Your task to perform on an android device: Add "usb-c to usb-b" to the cart on ebay.com Image 0: 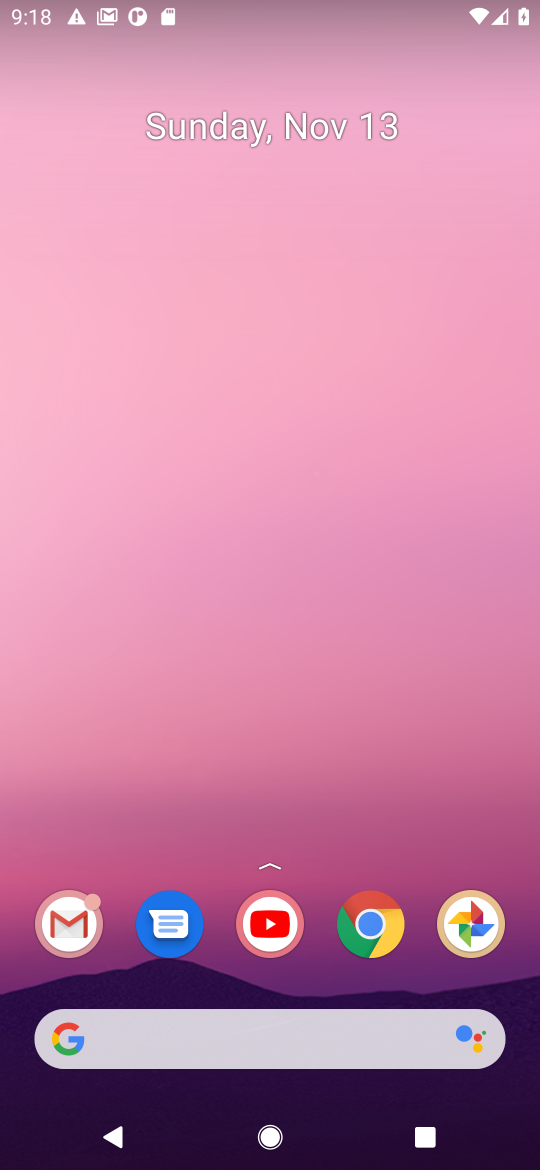
Step 0: click (386, 922)
Your task to perform on an android device: Add "usb-c to usb-b" to the cart on ebay.com Image 1: 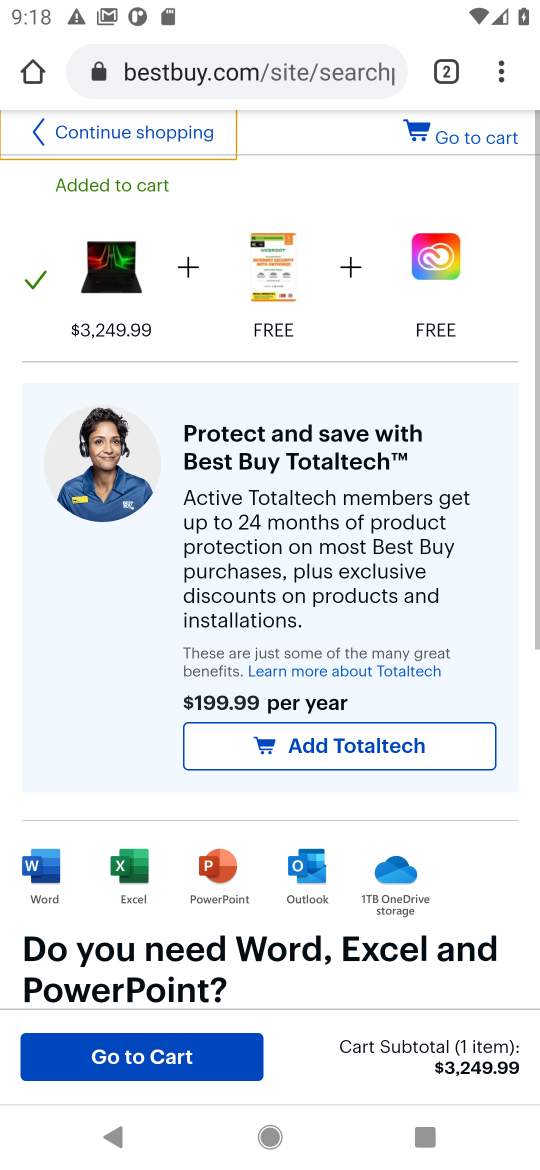
Step 1: click (257, 72)
Your task to perform on an android device: Add "usb-c to usb-b" to the cart on ebay.com Image 2: 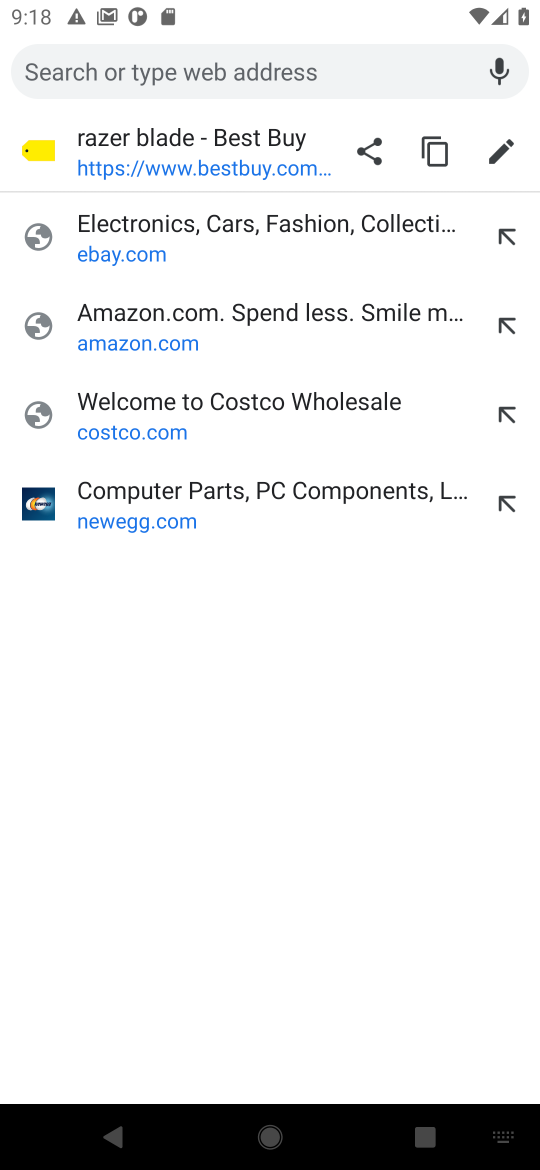
Step 2: click (98, 257)
Your task to perform on an android device: Add "usb-c to usb-b" to the cart on ebay.com Image 3: 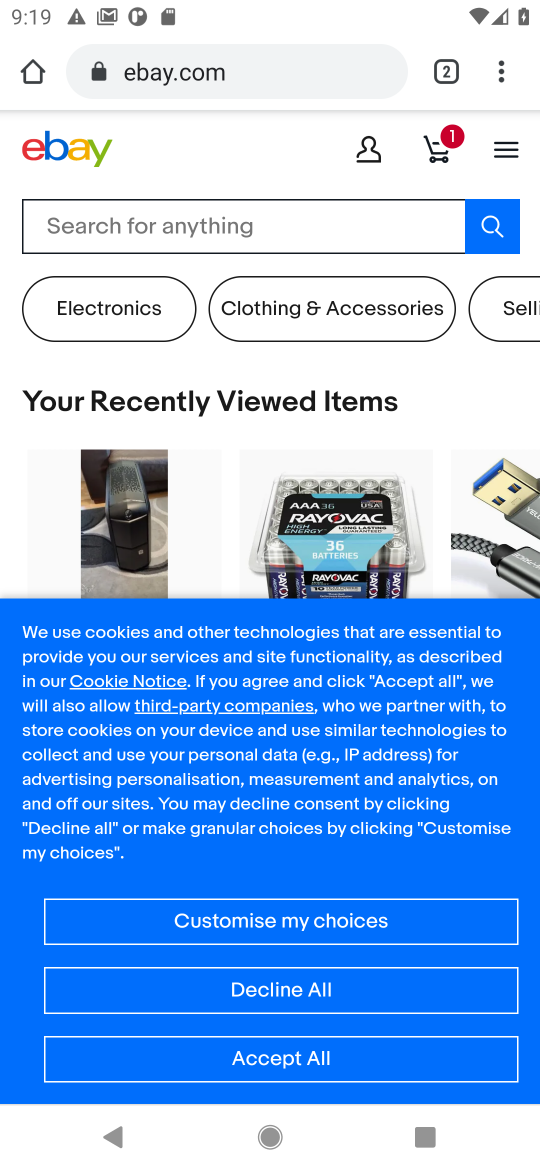
Step 3: click (196, 235)
Your task to perform on an android device: Add "usb-c to usb-b" to the cart on ebay.com Image 4: 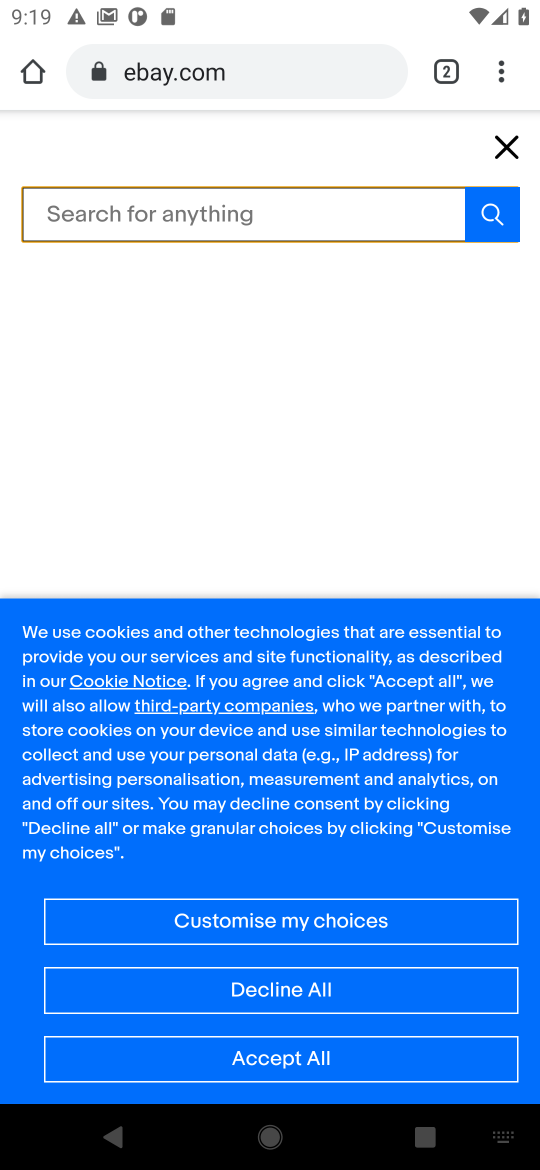
Step 4: type "usb-c to usb-b"
Your task to perform on an android device: Add "usb-c to usb-b" to the cart on ebay.com Image 5: 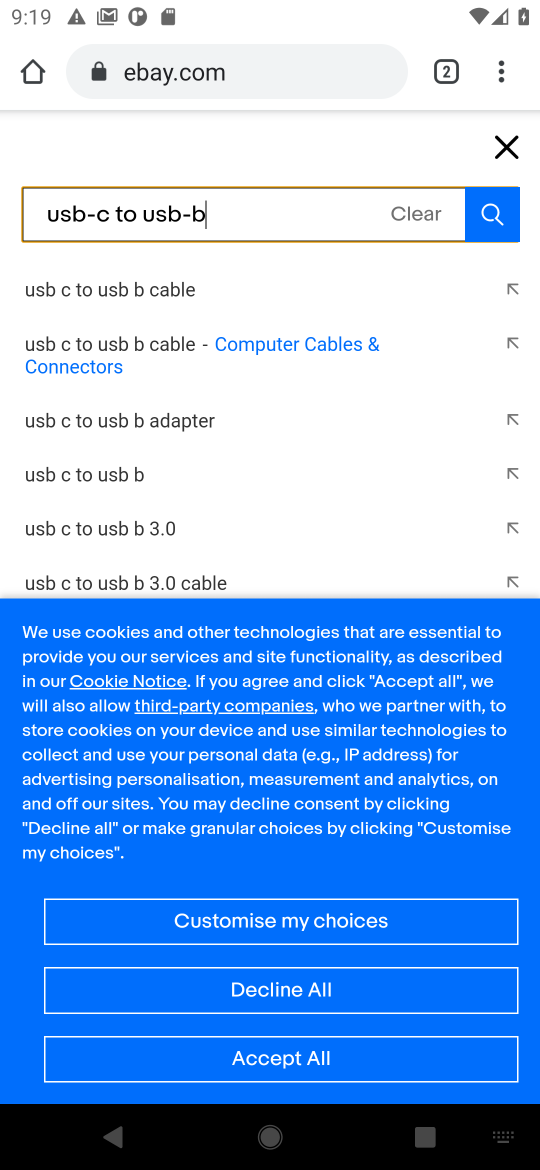
Step 5: click (489, 228)
Your task to perform on an android device: Add "usb-c to usb-b" to the cart on ebay.com Image 6: 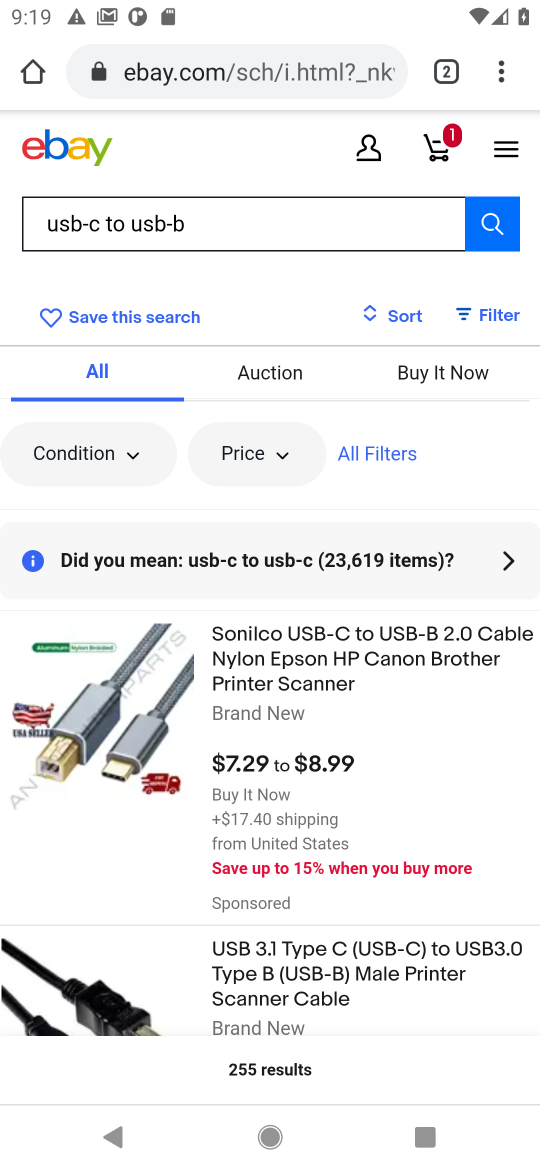
Step 6: click (159, 768)
Your task to perform on an android device: Add "usb-c to usb-b" to the cart on ebay.com Image 7: 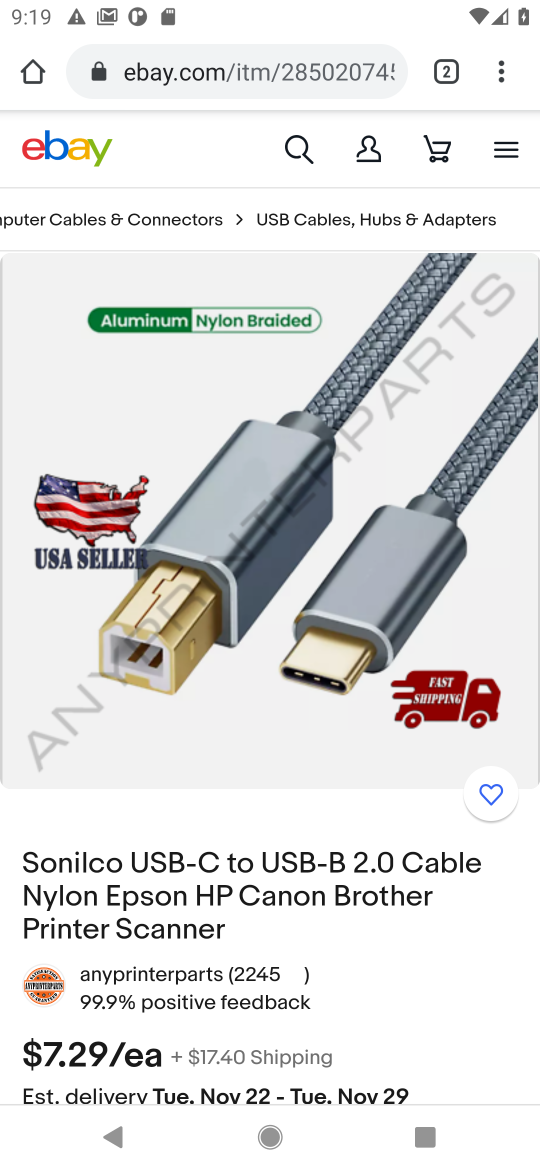
Step 7: drag from (277, 949) to (239, 419)
Your task to perform on an android device: Add "usb-c to usb-b" to the cart on ebay.com Image 8: 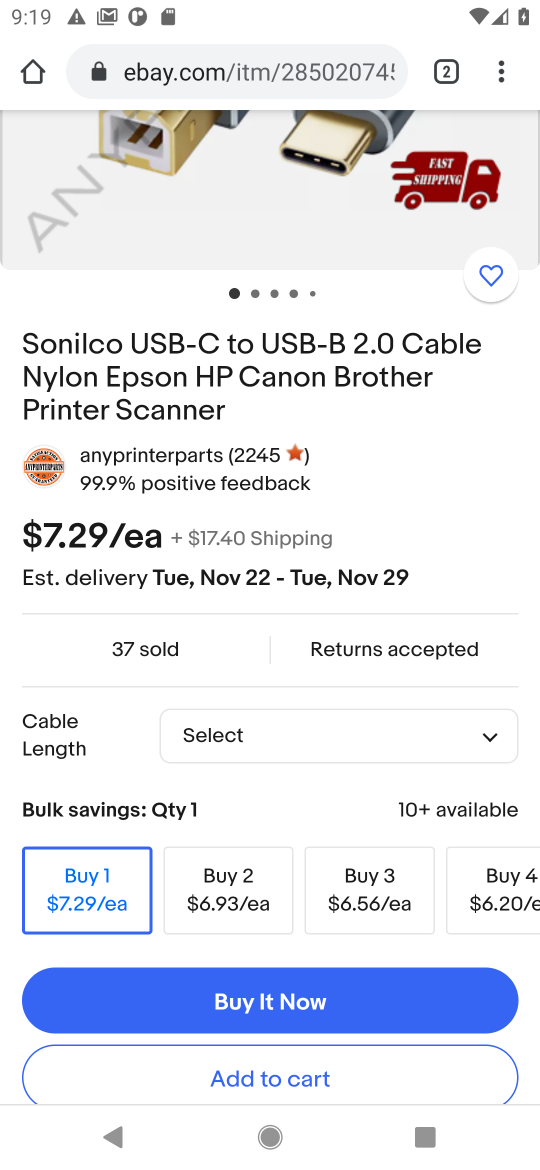
Step 8: click (330, 1069)
Your task to perform on an android device: Add "usb-c to usb-b" to the cart on ebay.com Image 9: 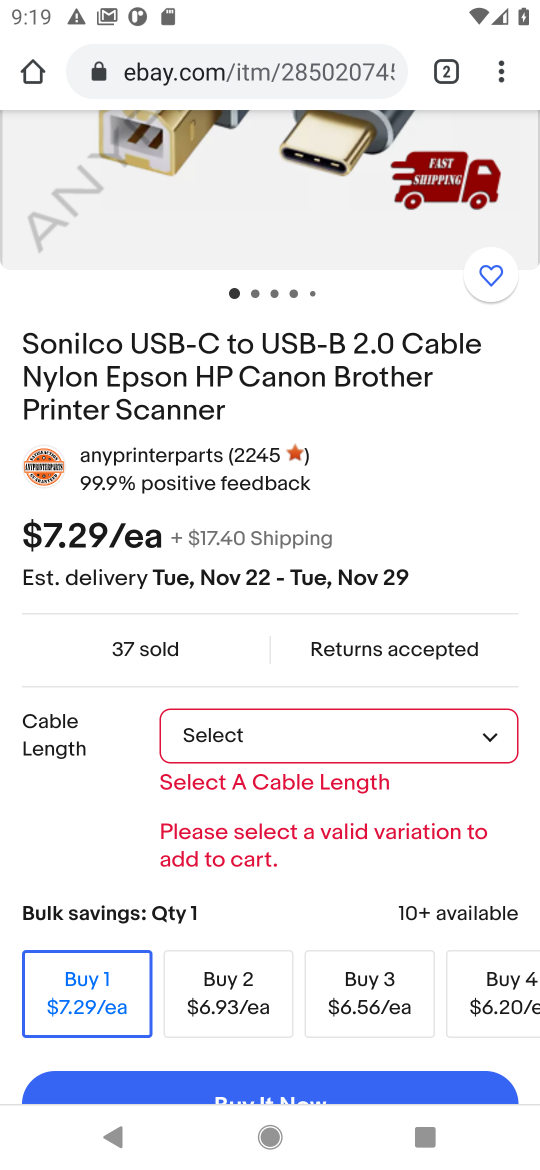
Step 9: click (495, 737)
Your task to perform on an android device: Add "usb-c to usb-b" to the cart on ebay.com Image 10: 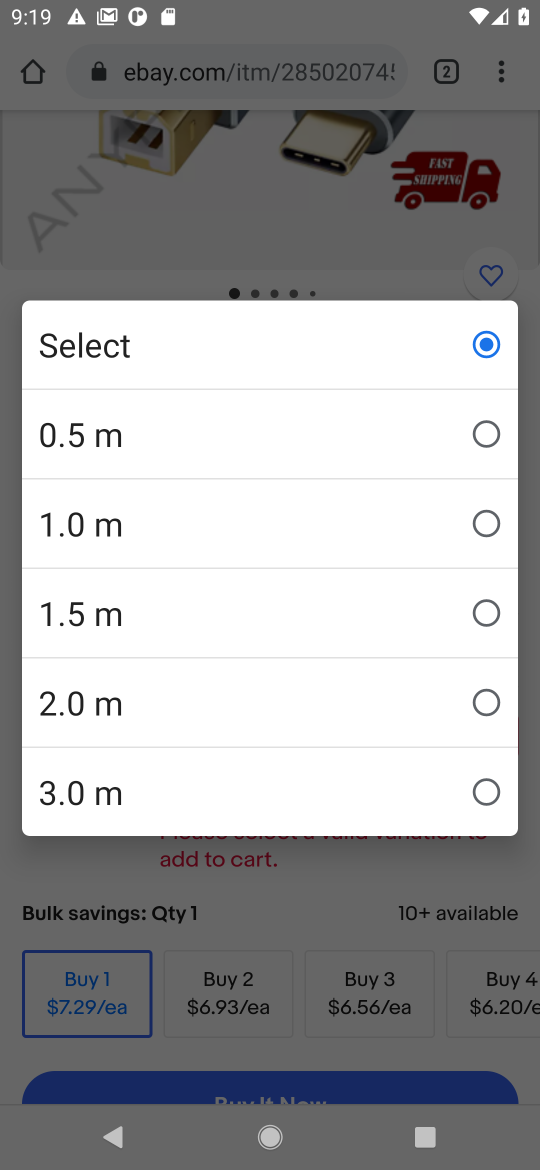
Step 10: click (61, 515)
Your task to perform on an android device: Add "usb-c to usb-b" to the cart on ebay.com Image 11: 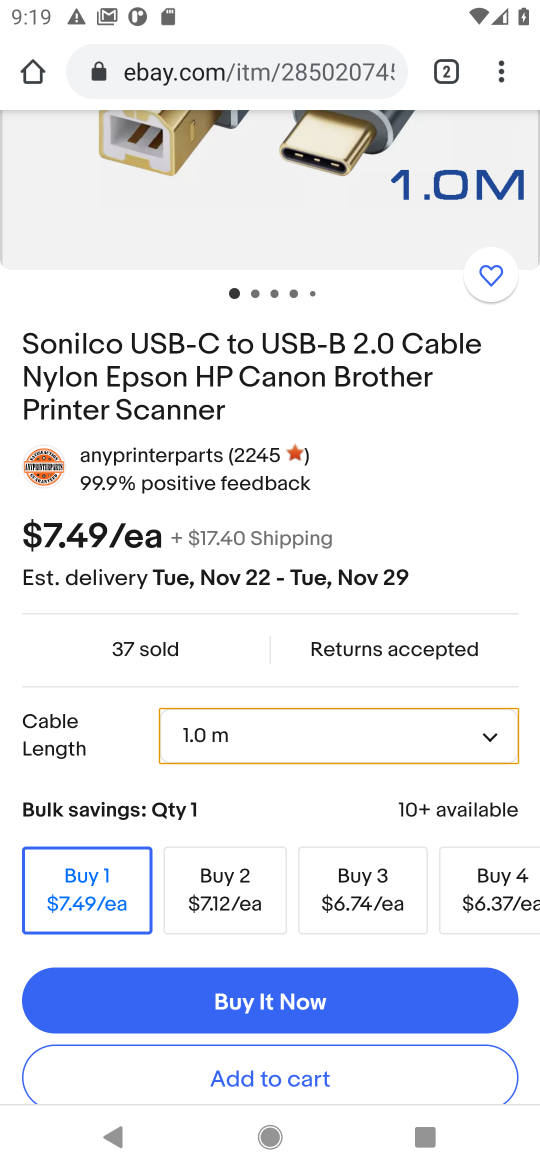
Step 11: click (278, 1062)
Your task to perform on an android device: Add "usb-c to usb-b" to the cart on ebay.com Image 12: 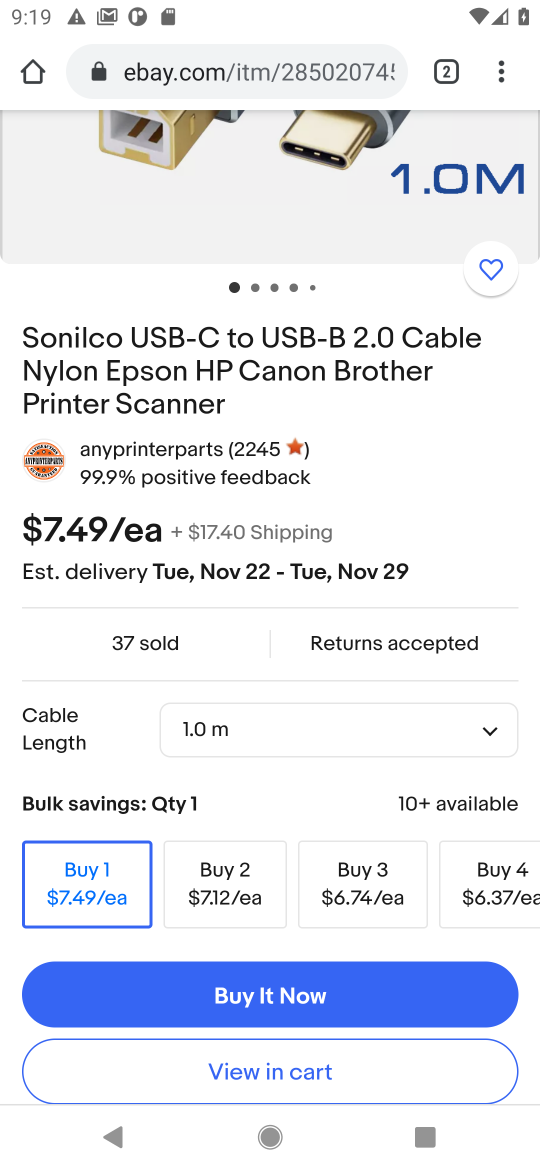
Step 12: task complete